Your task to perform on an android device: turn off notifications settings in the gmail app Image 0: 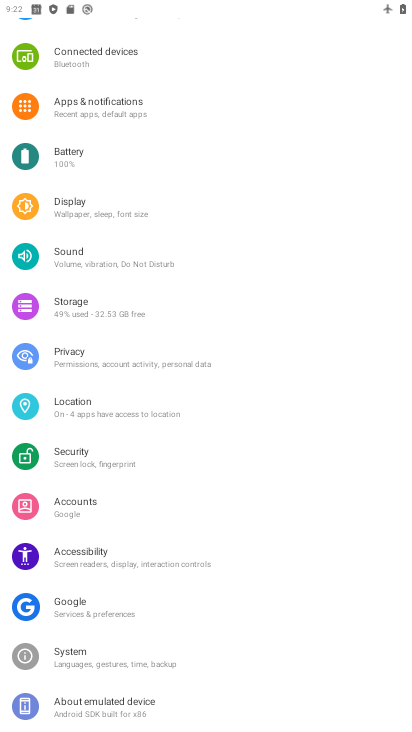
Step 0: press home button
Your task to perform on an android device: turn off notifications settings in the gmail app Image 1: 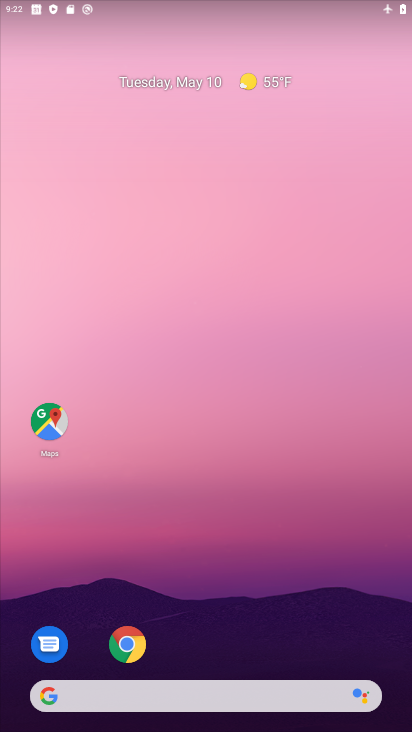
Step 1: drag from (203, 525) to (158, 140)
Your task to perform on an android device: turn off notifications settings in the gmail app Image 2: 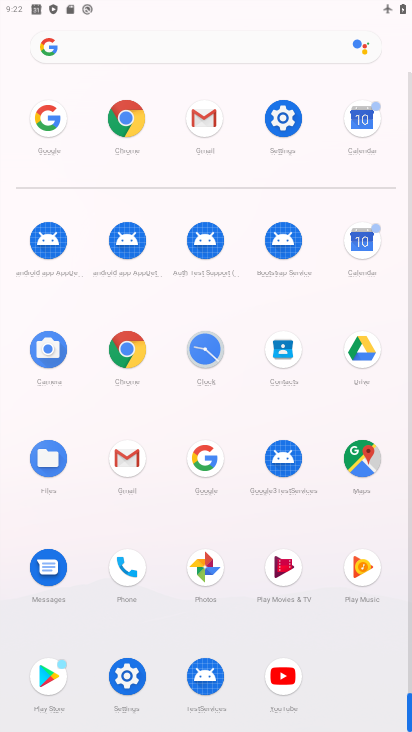
Step 2: click (215, 128)
Your task to perform on an android device: turn off notifications settings in the gmail app Image 3: 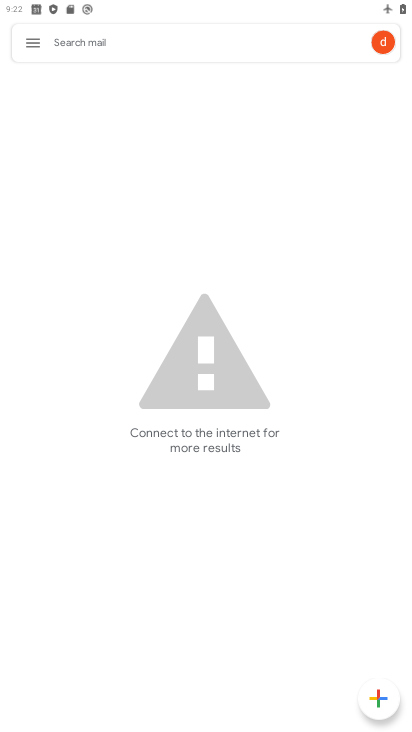
Step 3: click (34, 51)
Your task to perform on an android device: turn off notifications settings in the gmail app Image 4: 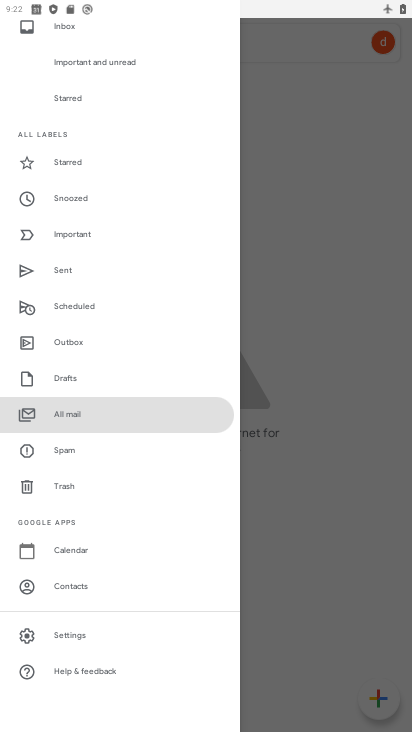
Step 4: click (98, 635)
Your task to perform on an android device: turn off notifications settings in the gmail app Image 5: 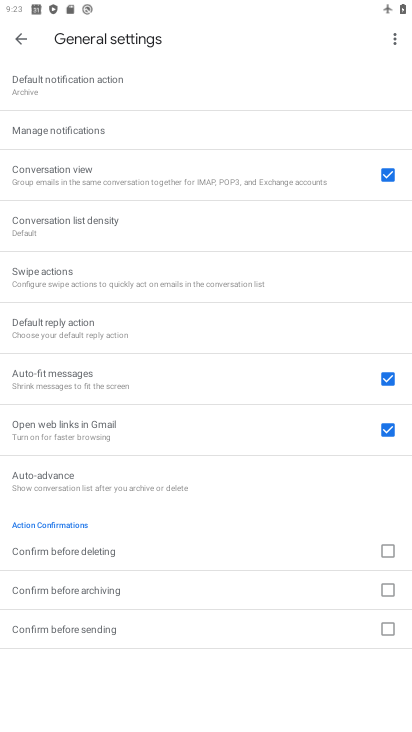
Step 5: click (48, 129)
Your task to perform on an android device: turn off notifications settings in the gmail app Image 6: 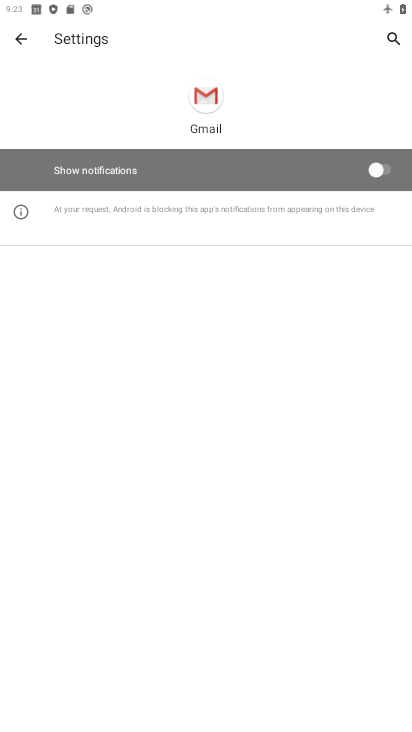
Step 6: task complete